Your task to perform on an android device: Open Google Chrome Image 0: 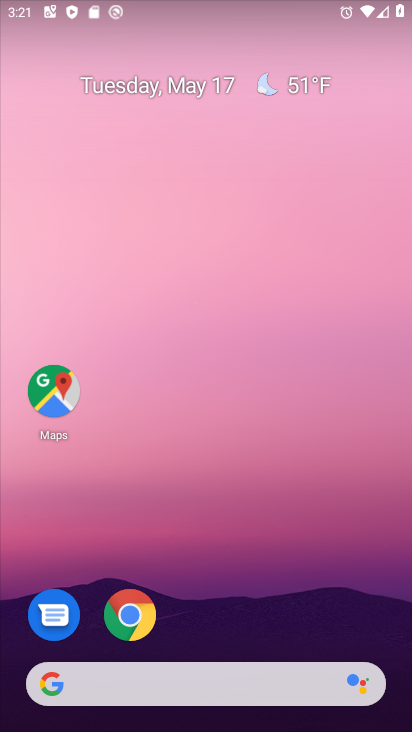
Step 0: click (130, 611)
Your task to perform on an android device: Open Google Chrome Image 1: 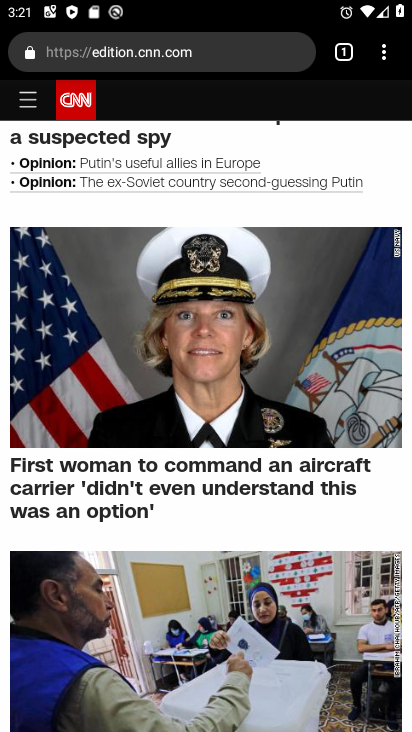
Step 1: click (344, 51)
Your task to perform on an android device: Open Google Chrome Image 2: 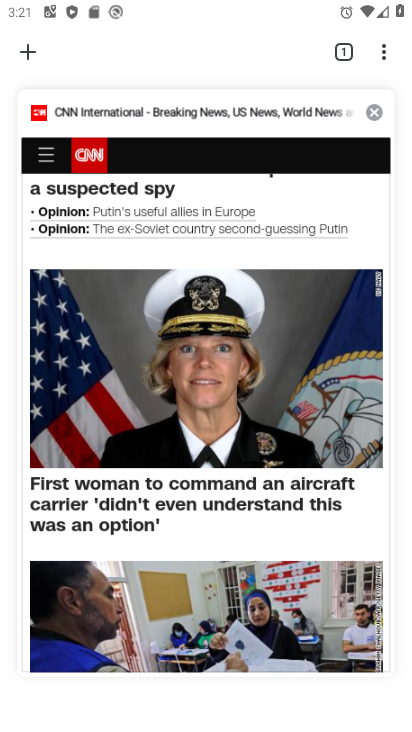
Step 2: click (362, 105)
Your task to perform on an android device: Open Google Chrome Image 3: 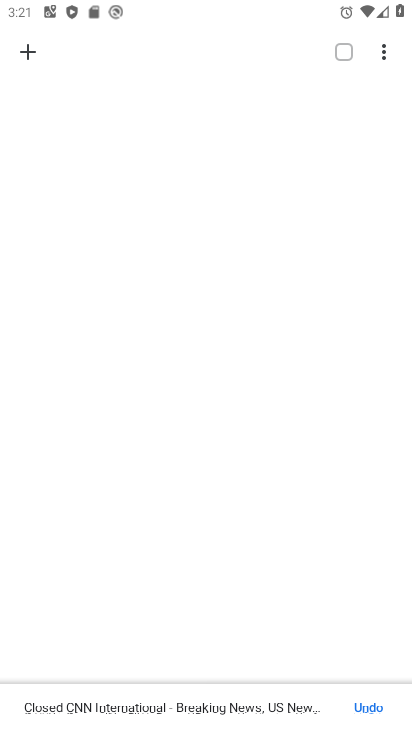
Step 3: click (21, 51)
Your task to perform on an android device: Open Google Chrome Image 4: 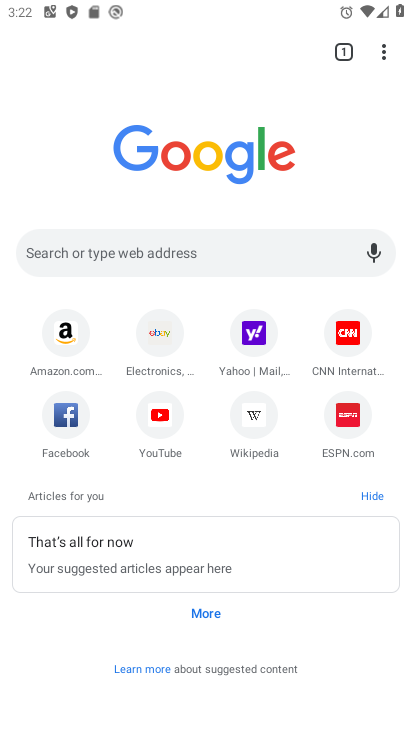
Step 4: task complete